Your task to perform on an android device: Go to settings Image 0: 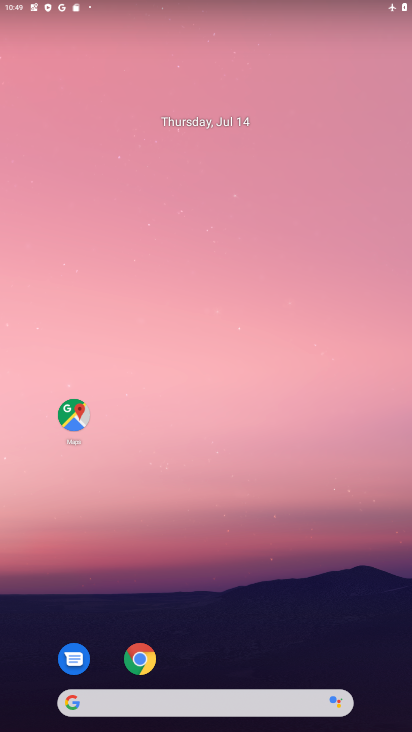
Step 0: drag from (319, 633) to (260, 154)
Your task to perform on an android device: Go to settings Image 1: 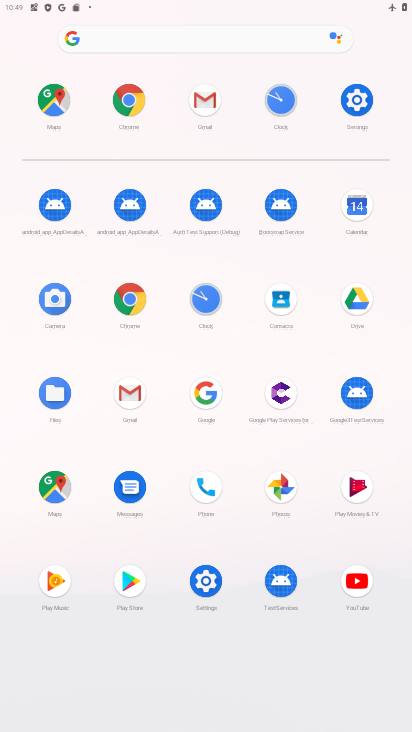
Step 1: click (359, 100)
Your task to perform on an android device: Go to settings Image 2: 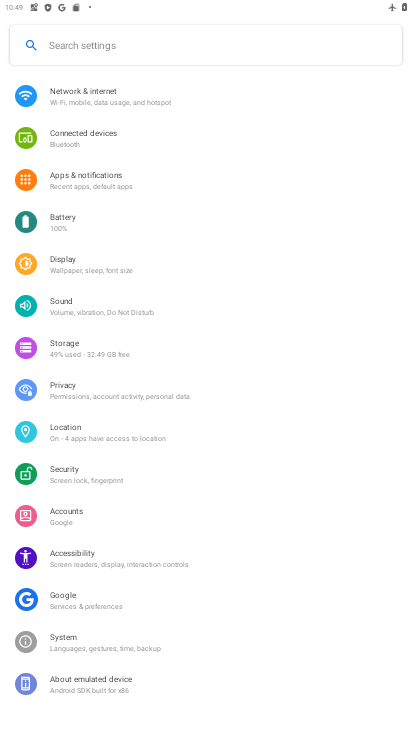
Step 2: task complete